Your task to perform on an android device: Go to wifi settings Image 0: 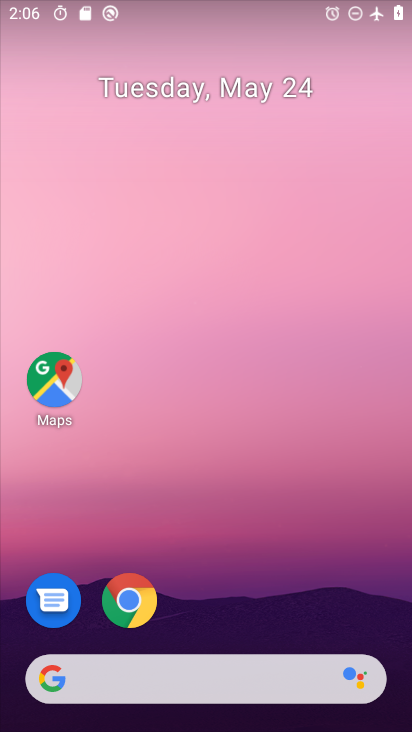
Step 0: drag from (217, 524) to (202, 176)
Your task to perform on an android device: Go to wifi settings Image 1: 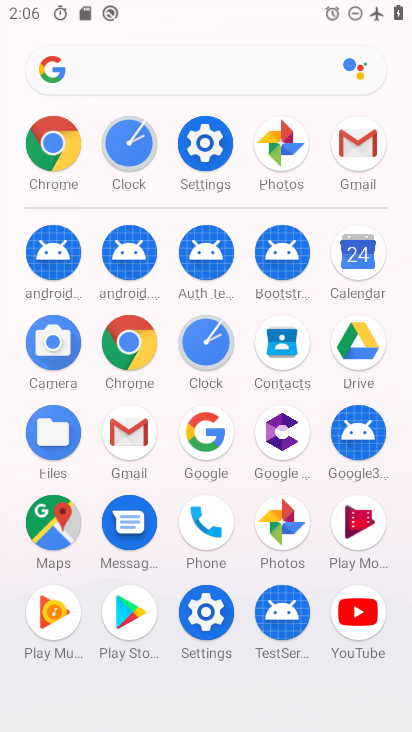
Step 1: click (217, 136)
Your task to perform on an android device: Go to wifi settings Image 2: 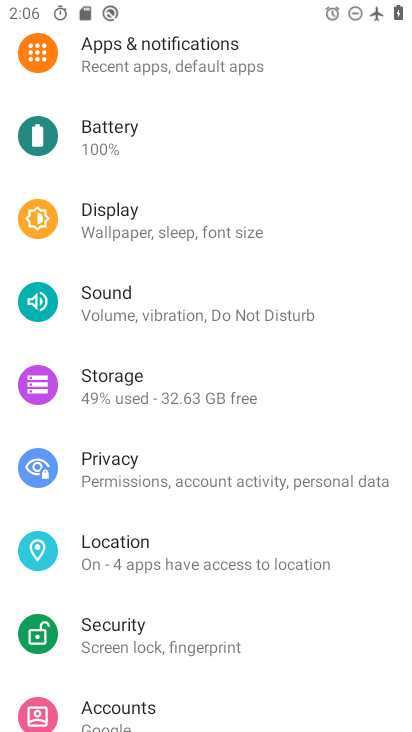
Step 2: drag from (190, 172) to (236, 538)
Your task to perform on an android device: Go to wifi settings Image 3: 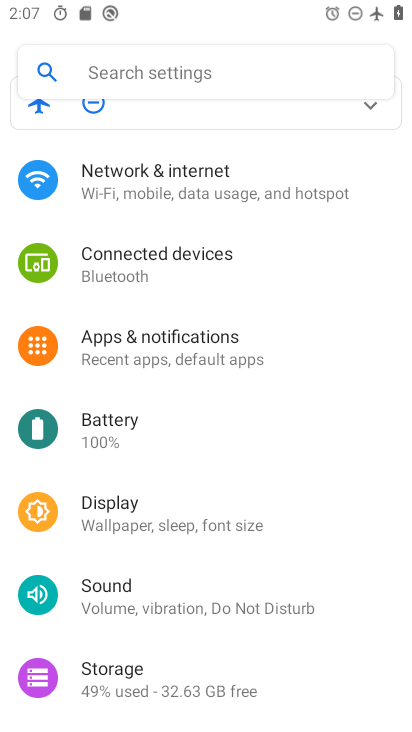
Step 3: click (134, 186)
Your task to perform on an android device: Go to wifi settings Image 4: 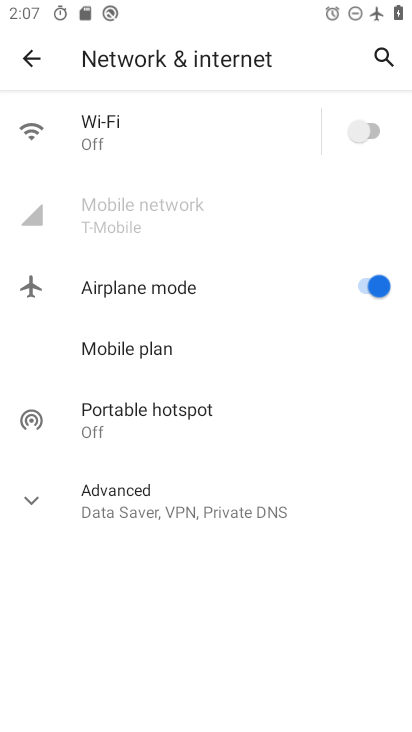
Step 4: click (261, 134)
Your task to perform on an android device: Go to wifi settings Image 5: 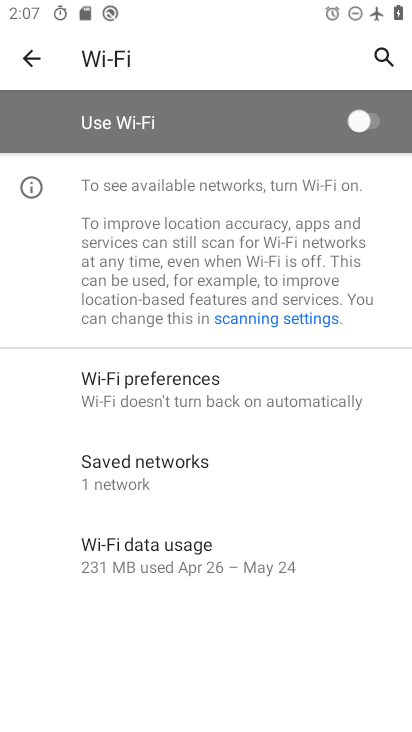
Step 5: click (376, 119)
Your task to perform on an android device: Go to wifi settings Image 6: 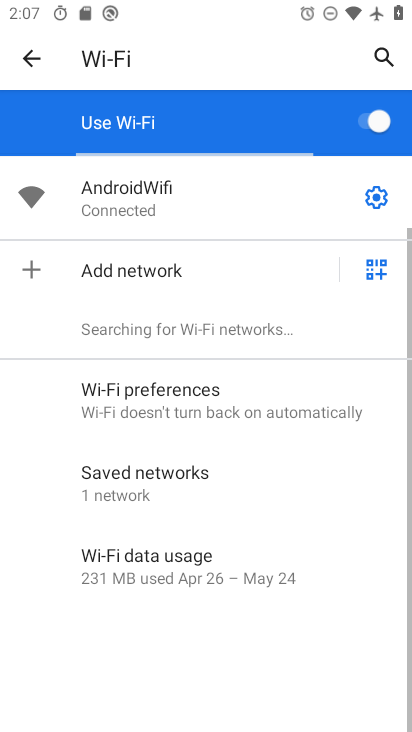
Step 6: click (372, 201)
Your task to perform on an android device: Go to wifi settings Image 7: 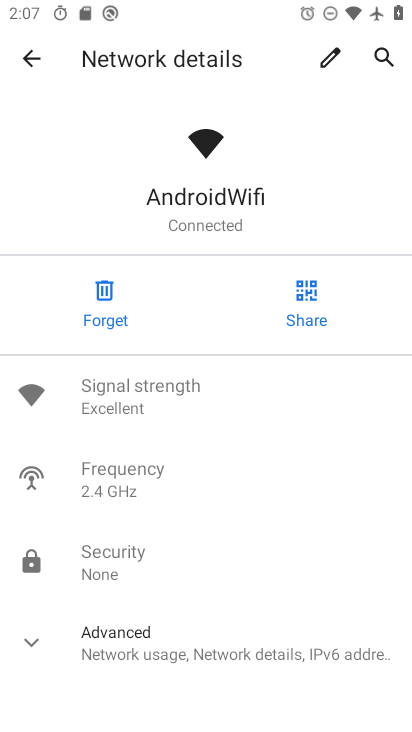
Step 7: task complete